Your task to perform on an android device: Toggle the flashlight Image 0: 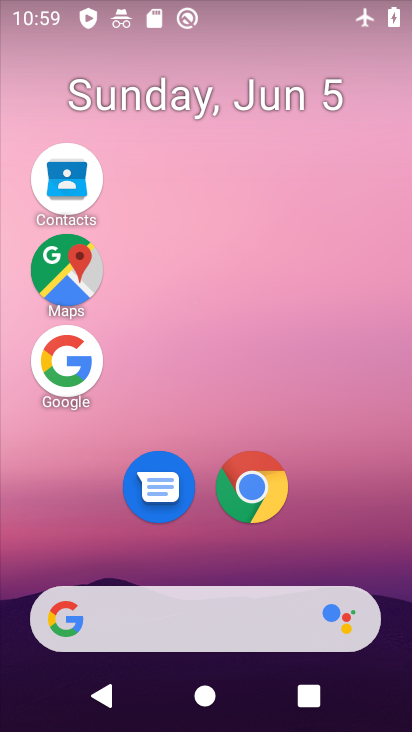
Step 0: drag from (336, 11) to (250, 418)
Your task to perform on an android device: Toggle the flashlight Image 1: 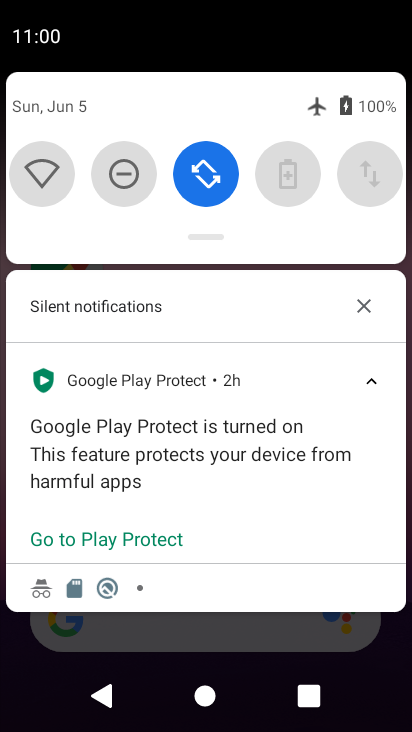
Step 1: task complete